Your task to perform on an android device: turn on showing notifications on the lock screen Image 0: 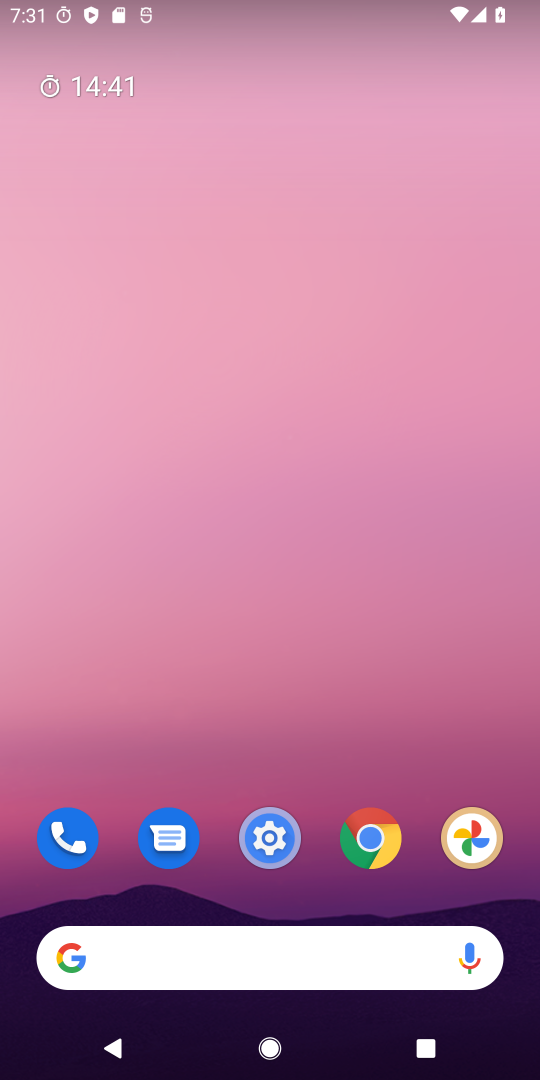
Step 0: drag from (329, 869) to (506, 41)
Your task to perform on an android device: turn on showing notifications on the lock screen Image 1: 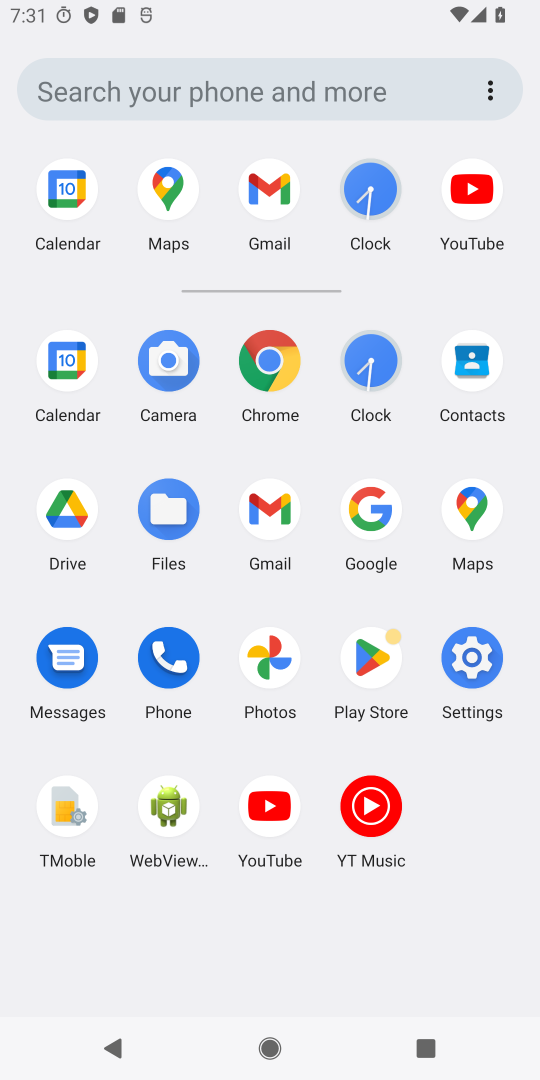
Step 1: click (471, 645)
Your task to perform on an android device: turn on showing notifications on the lock screen Image 2: 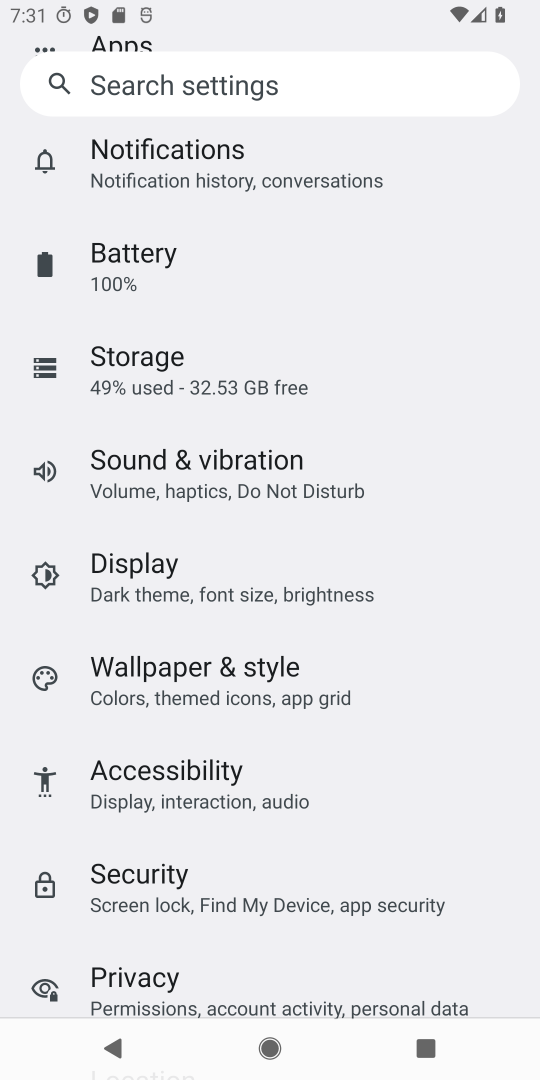
Step 2: click (180, 166)
Your task to perform on an android device: turn on showing notifications on the lock screen Image 3: 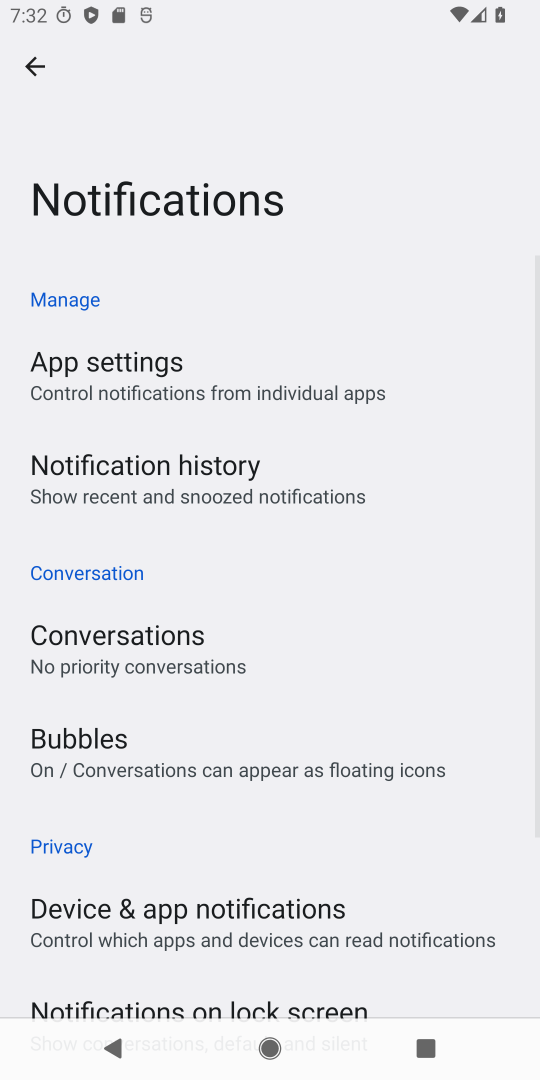
Step 3: drag from (276, 818) to (339, 408)
Your task to perform on an android device: turn on showing notifications on the lock screen Image 4: 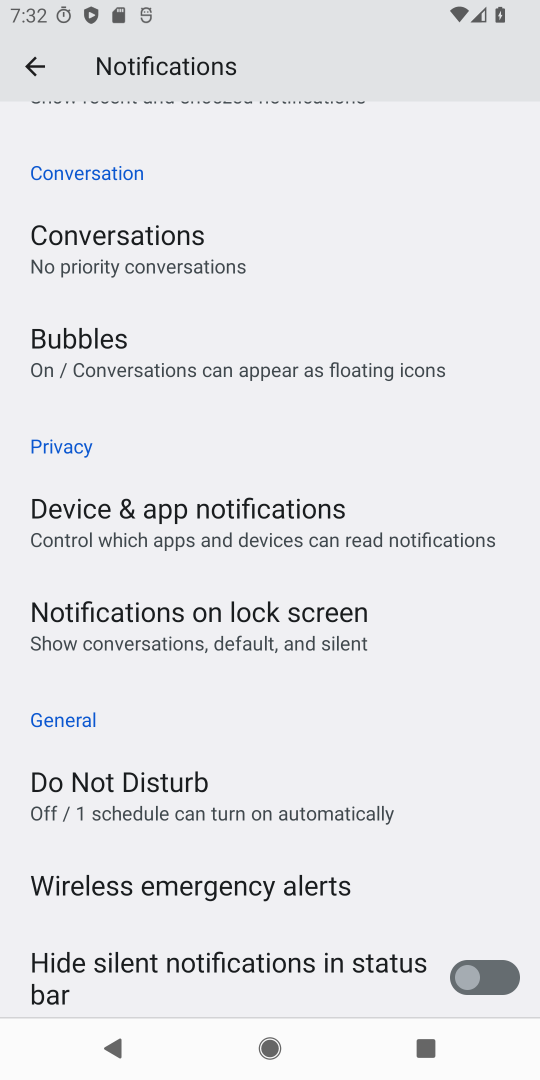
Step 4: click (220, 616)
Your task to perform on an android device: turn on showing notifications on the lock screen Image 5: 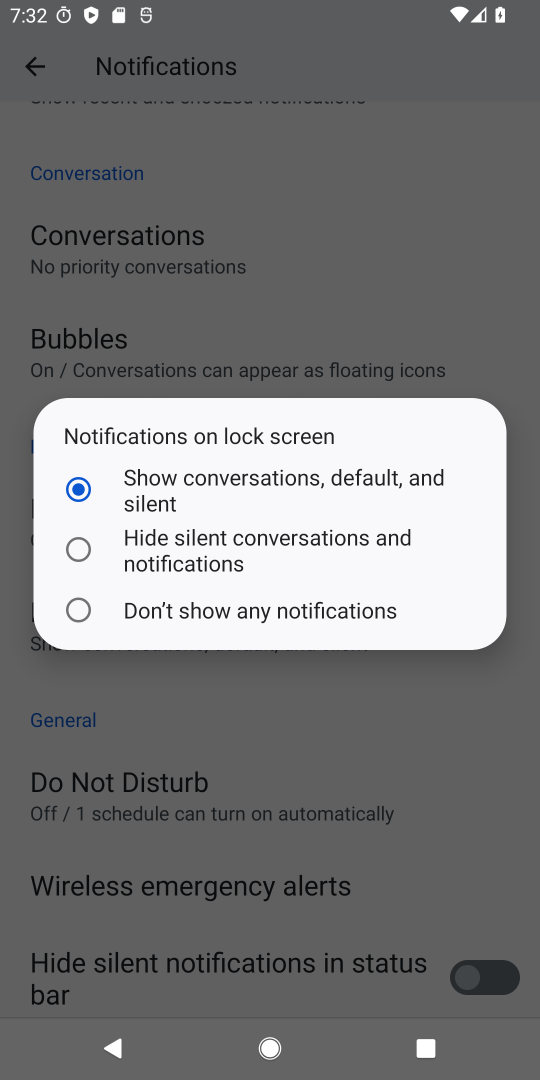
Step 5: task complete